Your task to perform on an android device: Show the shopping cart on newegg.com. Search for usb-c to usb-b on newegg.com, select the first entry, add it to the cart, then select checkout. Image 0: 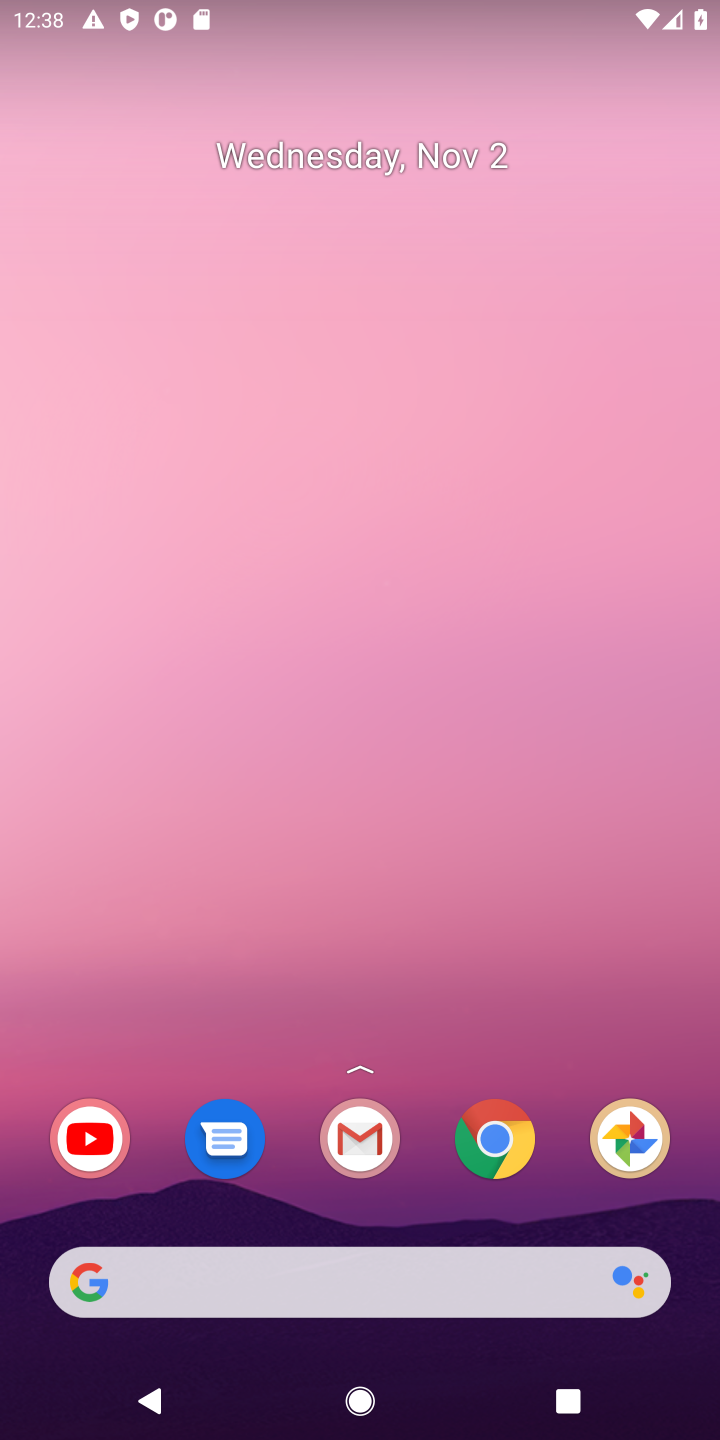
Step 0: press home button
Your task to perform on an android device: Show the shopping cart on newegg.com. Search for usb-c to usb-b on newegg.com, select the first entry, add it to the cart, then select checkout. Image 1: 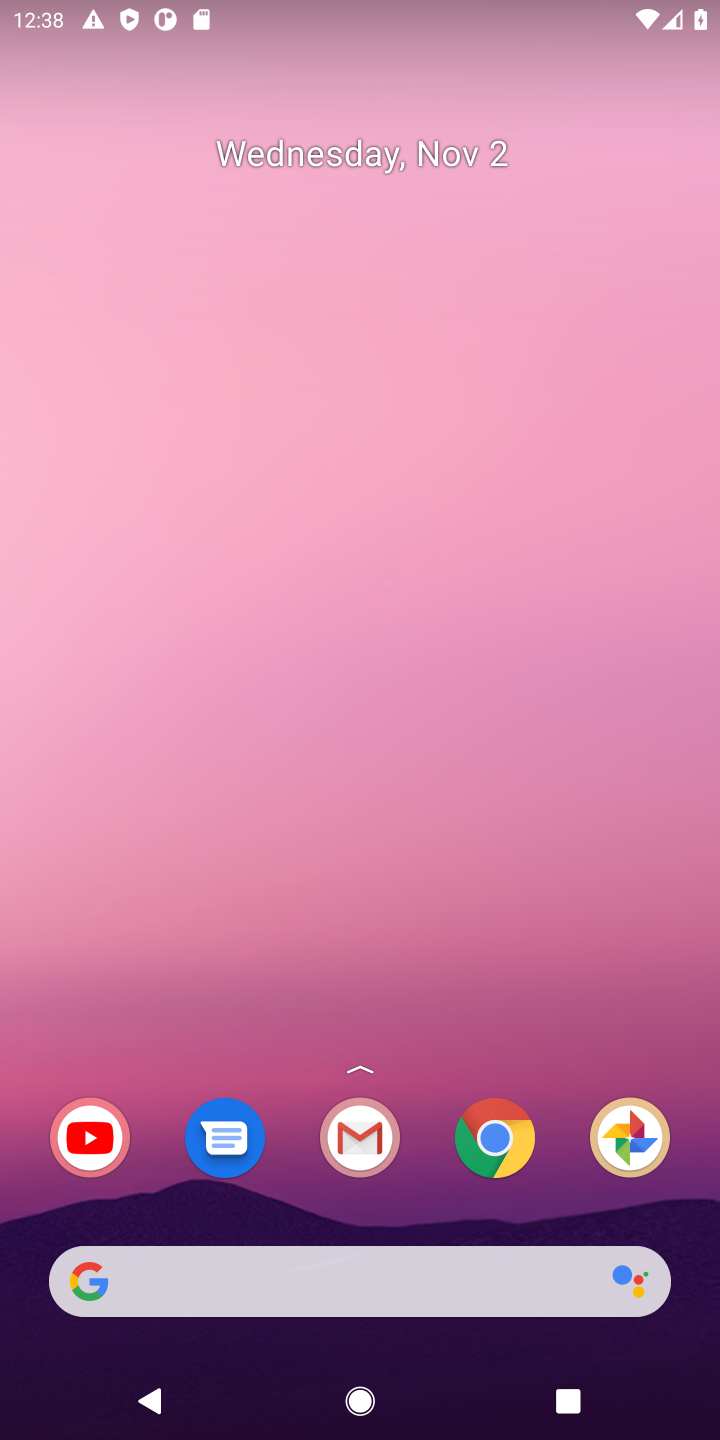
Step 1: click (124, 1280)
Your task to perform on an android device: Show the shopping cart on newegg.com. Search for usb-c to usb-b on newegg.com, select the first entry, add it to the cart, then select checkout. Image 2: 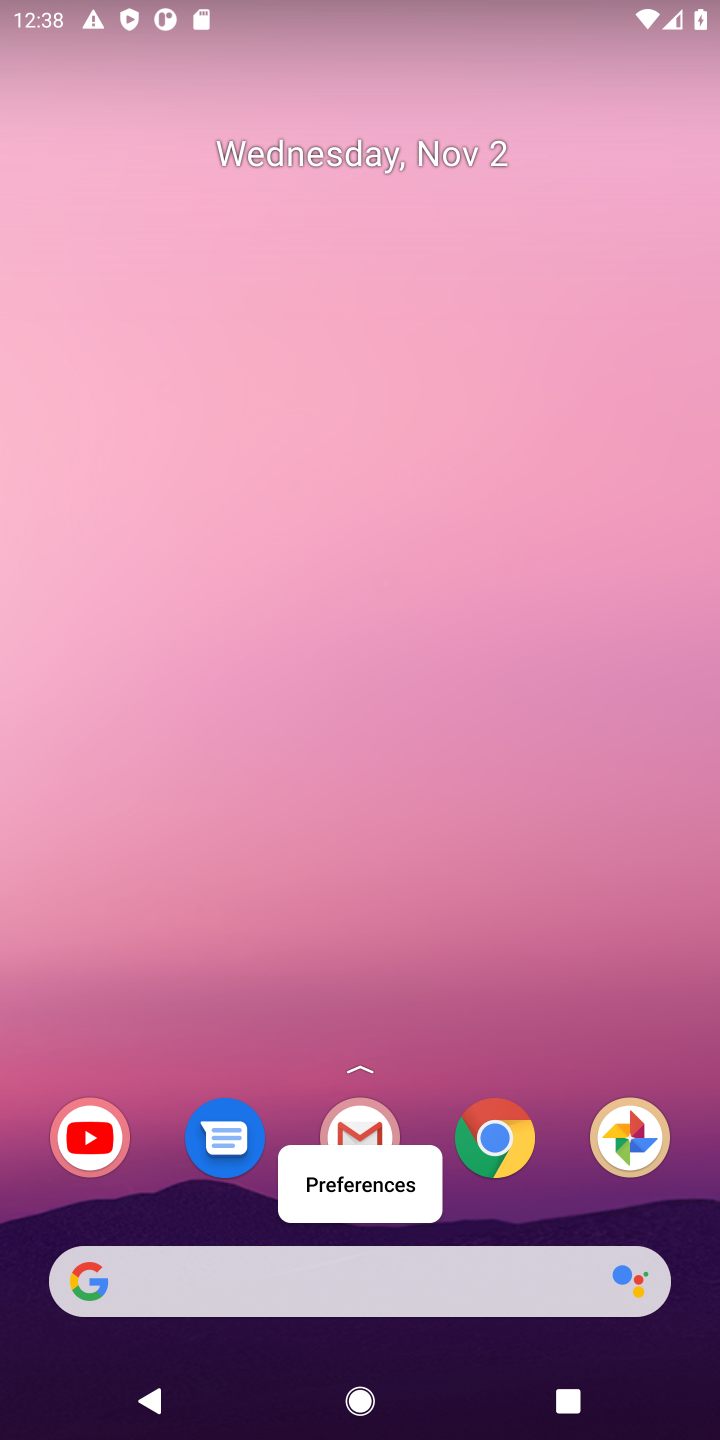
Step 2: click (124, 1280)
Your task to perform on an android device: Show the shopping cart on newegg.com. Search for usb-c to usb-b on newegg.com, select the first entry, add it to the cart, then select checkout. Image 3: 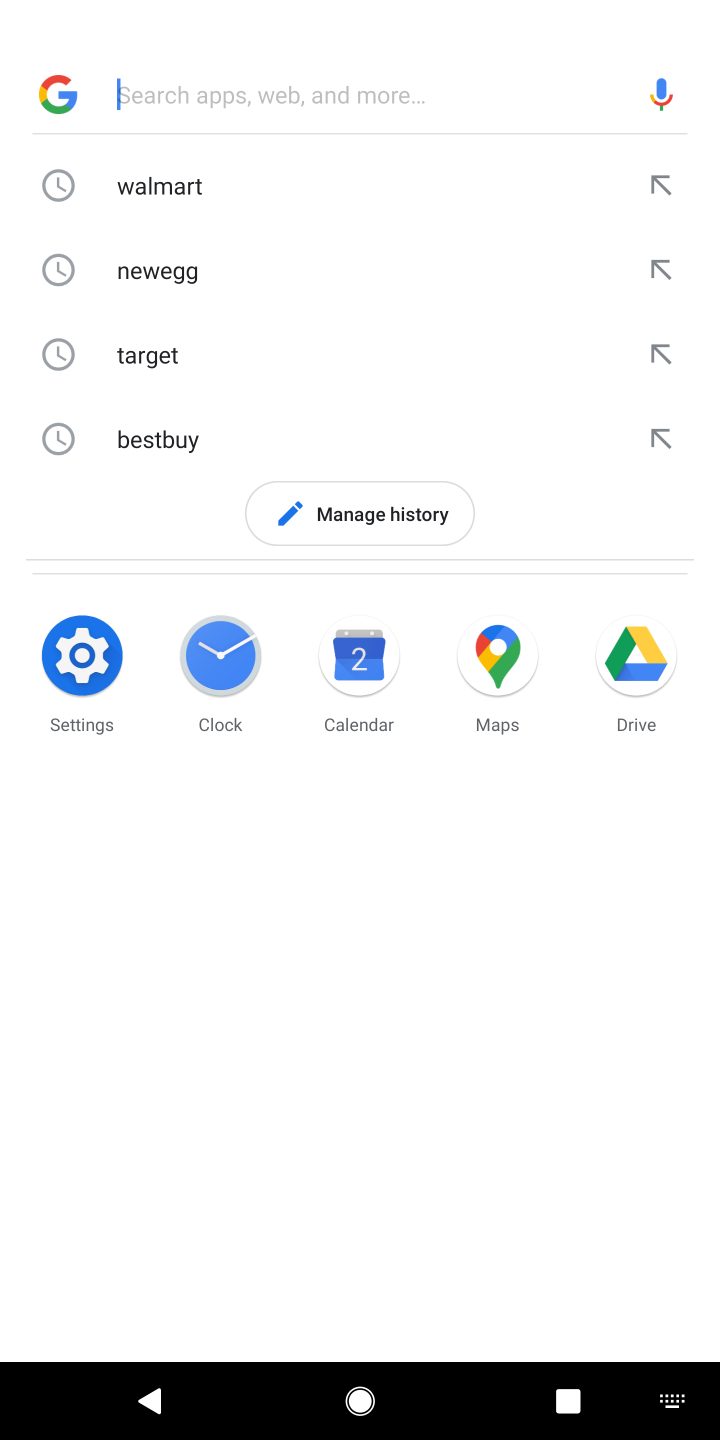
Step 3: type "newegg.com"
Your task to perform on an android device: Show the shopping cart on newegg.com. Search for usb-c to usb-b on newegg.com, select the first entry, add it to the cart, then select checkout. Image 4: 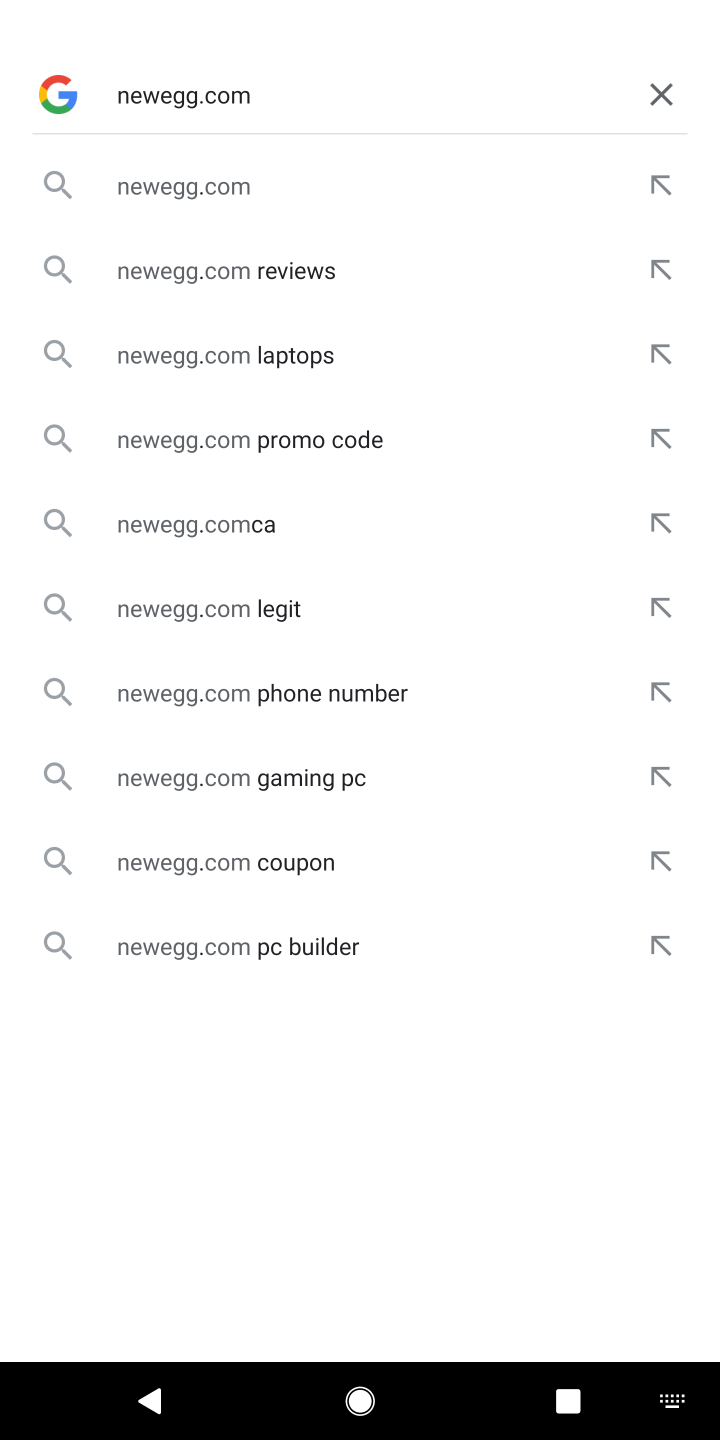
Step 4: press enter
Your task to perform on an android device: Show the shopping cart on newegg.com. Search for usb-c to usb-b on newegg.com, select the first entry, add it to the cart, then select checkout. Image 5: 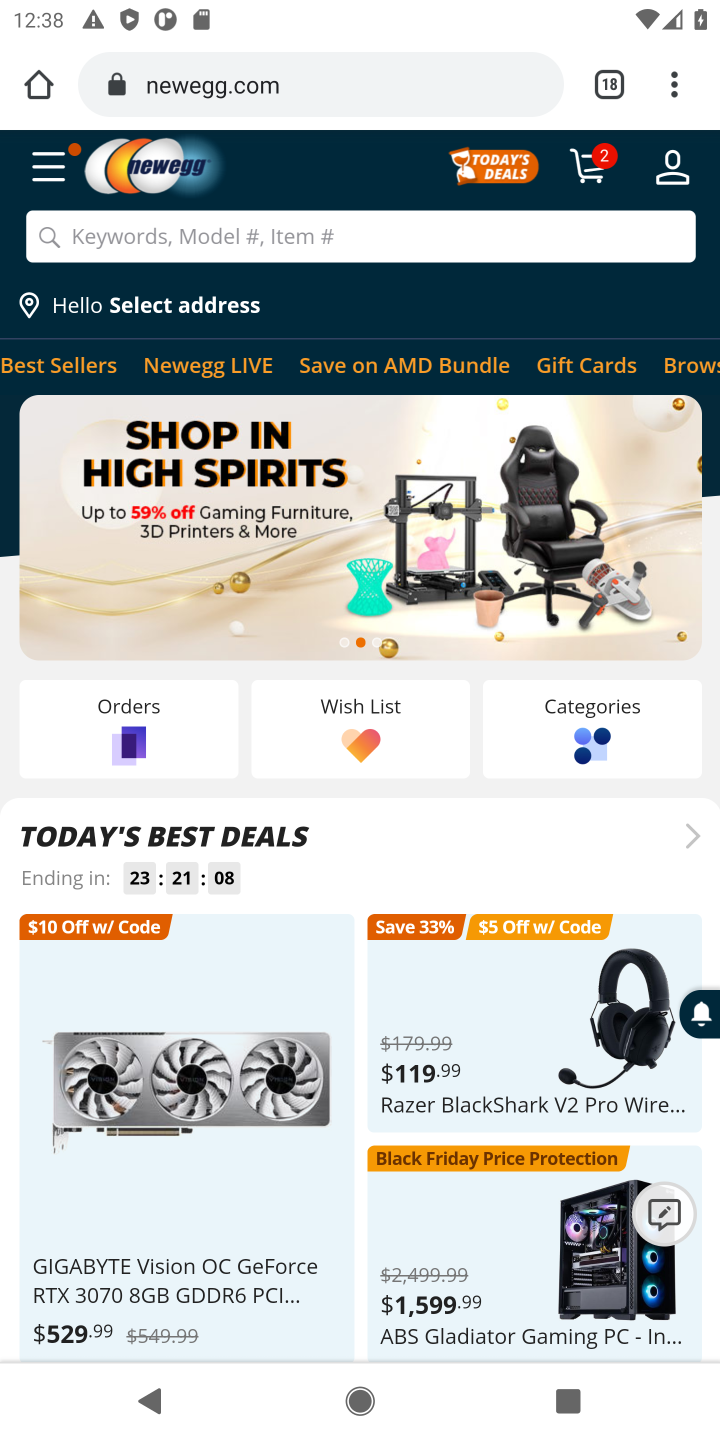
Step 5: click (594, 169)
Your task to perform on an android device: Show the shopping cart on newegg.com. Search for usb-c to usb-b on newegg.com, select the first entry, add it to the cart, then select checkout. Image 6: 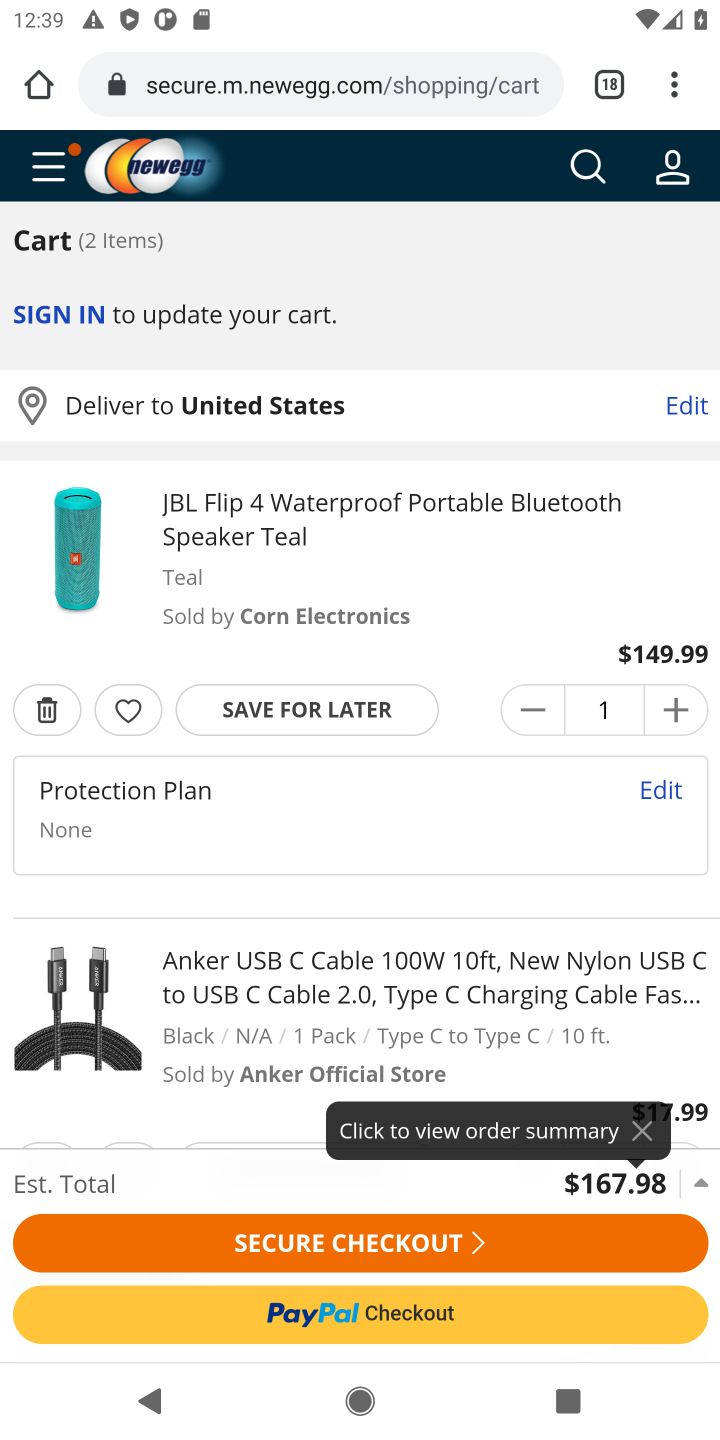
Step 6: click (584, 165)
Your task to perform on an android device: Show the shopping cart on newegg.com. Search for usb-c to usb-b on newegg.com, select the first entry, add it to the cart, then select checkout. Image 7: 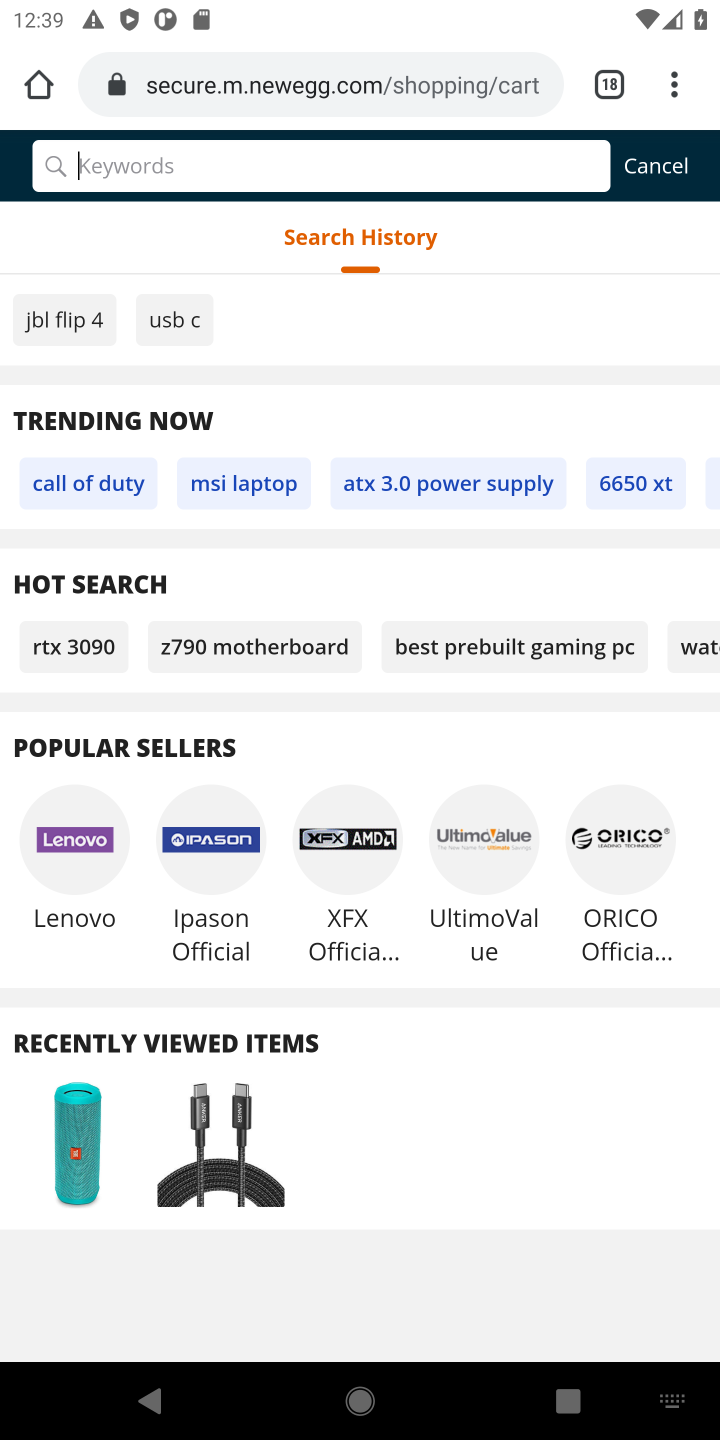
Step 7: type "usb-c to usb-b"
Your task to perform on an android device: Show the shopping cart on newegg.com. Search for usb-c to usb-b on newegg.com, select the first entry, add it to the cart, then select checkout. Image 8: 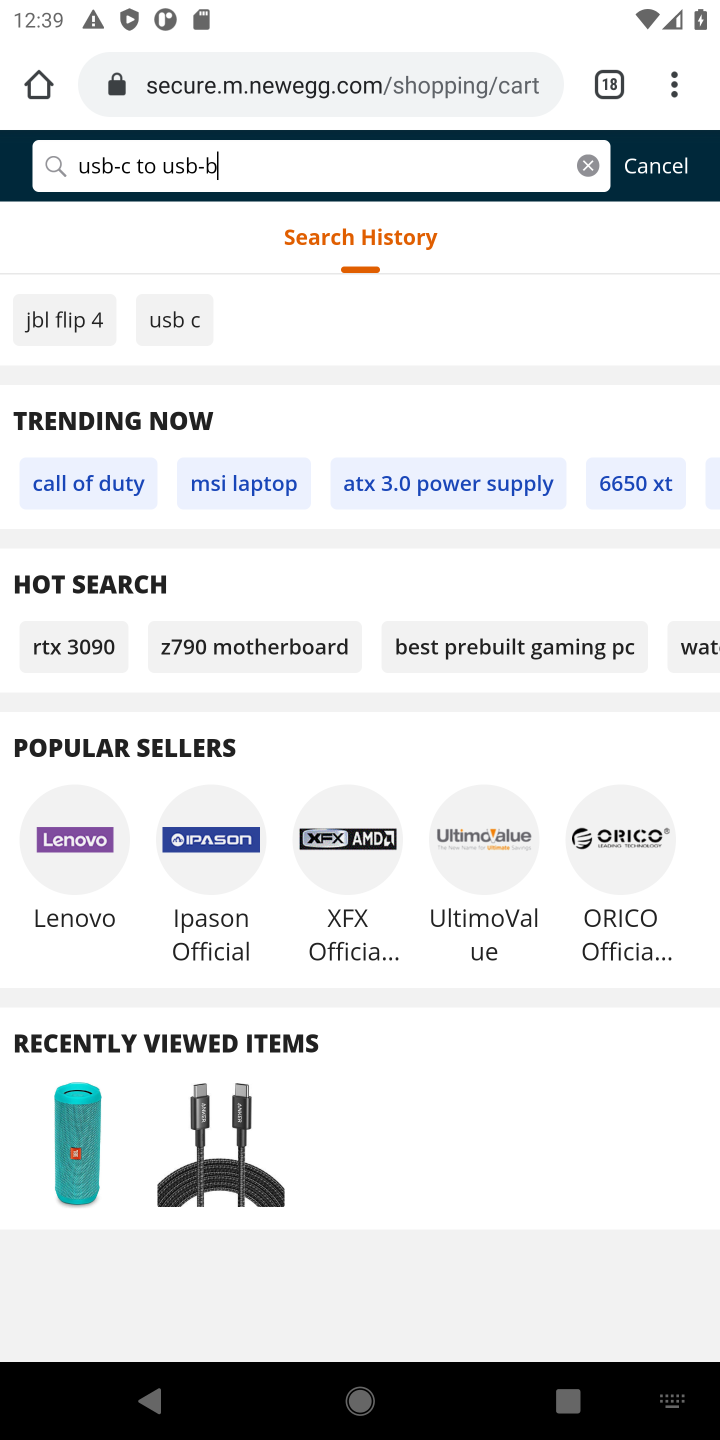
Step 8: press enter
Your task to perform on an android device: Show the shopping cart on newegg.com. Search for usb-c to usb-b on newegg.com, select the first entry, add it to the cart, then select checkout. Image 9: 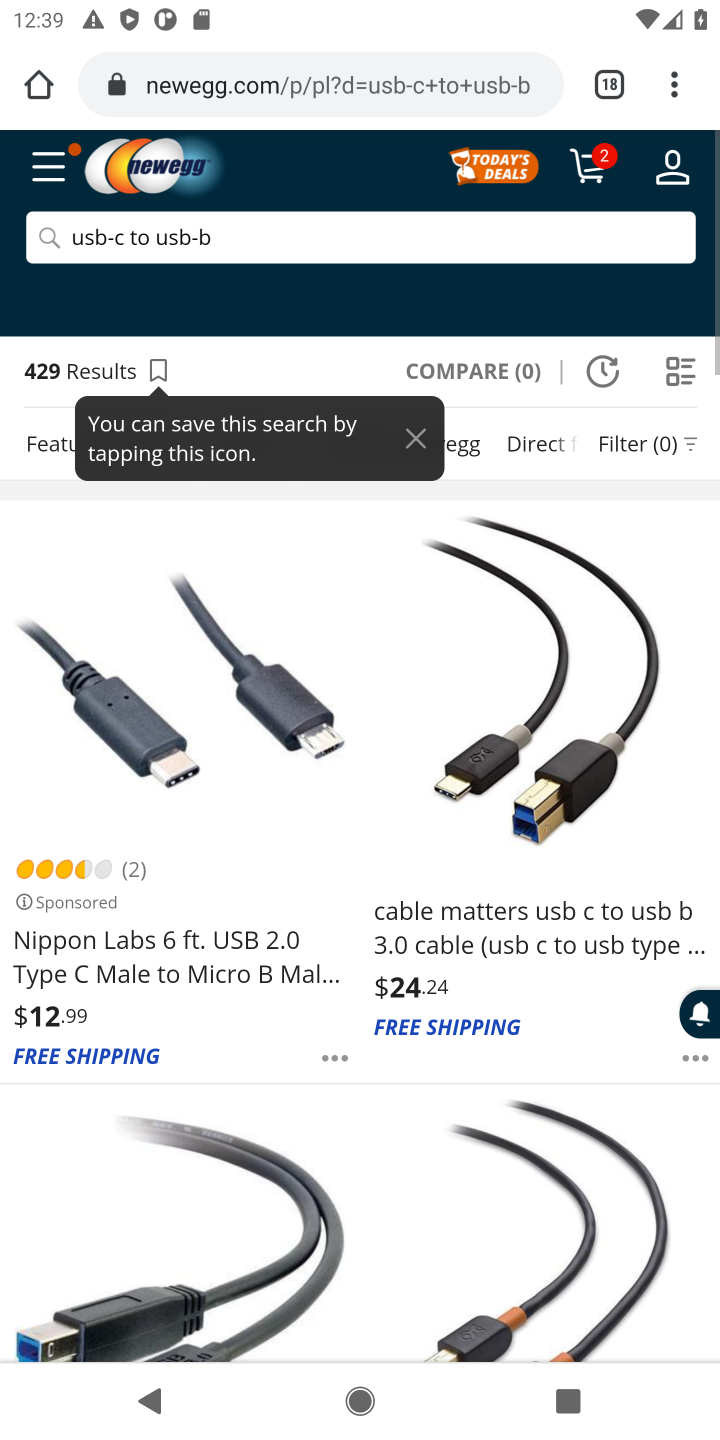
Step 9: drag from (512, 1163) to (483, 641)
Your task to perform on an android device: Show the shopping cart on newegg.com. Search for usb-c to usb-b on newegg.com, select the first entry, add it to the cart, then select checkout. Image 10: 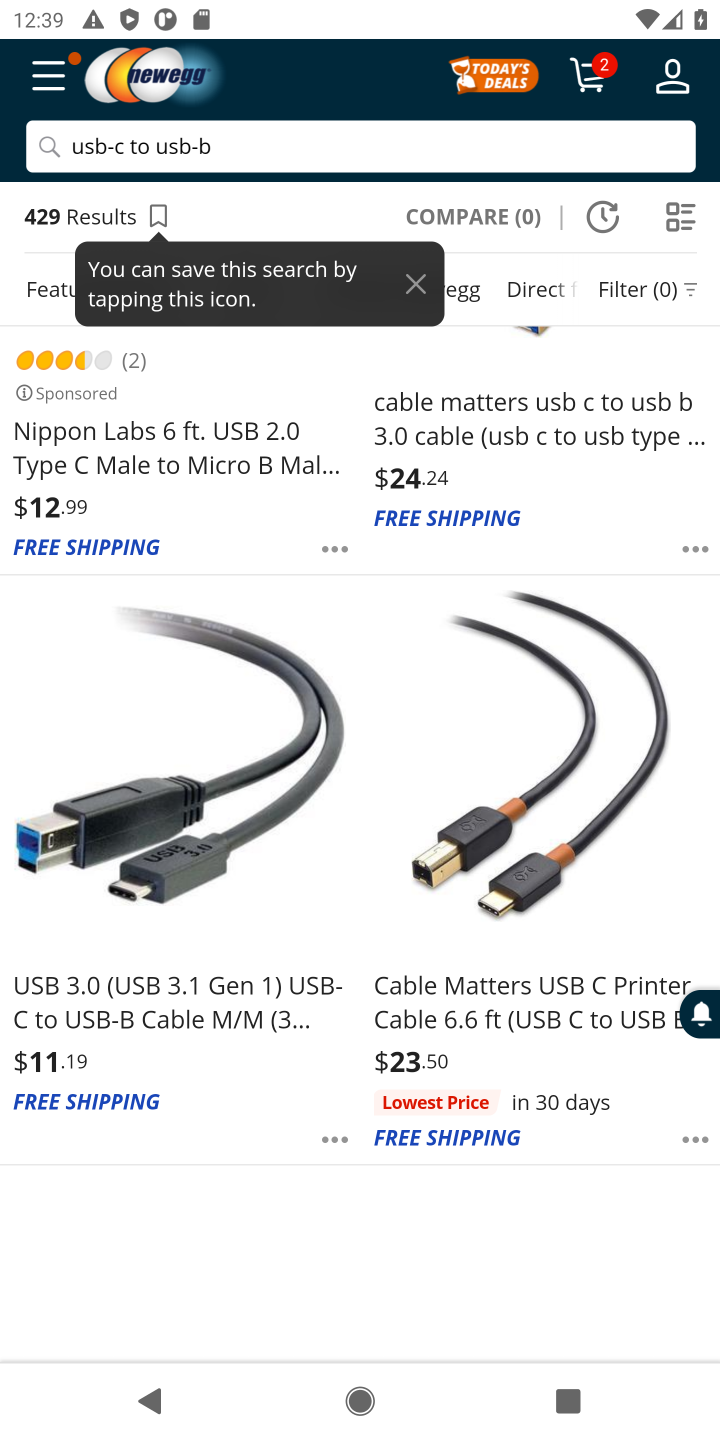
Step 10: drag from (515, 1172) to (540, 816)
Your task to perform on an android device: Show the shopping cart on newegg.com. Search for usb-c to usb-b on newegg.com, select the first entry, add it to the cart, then select checkout. Image 11: 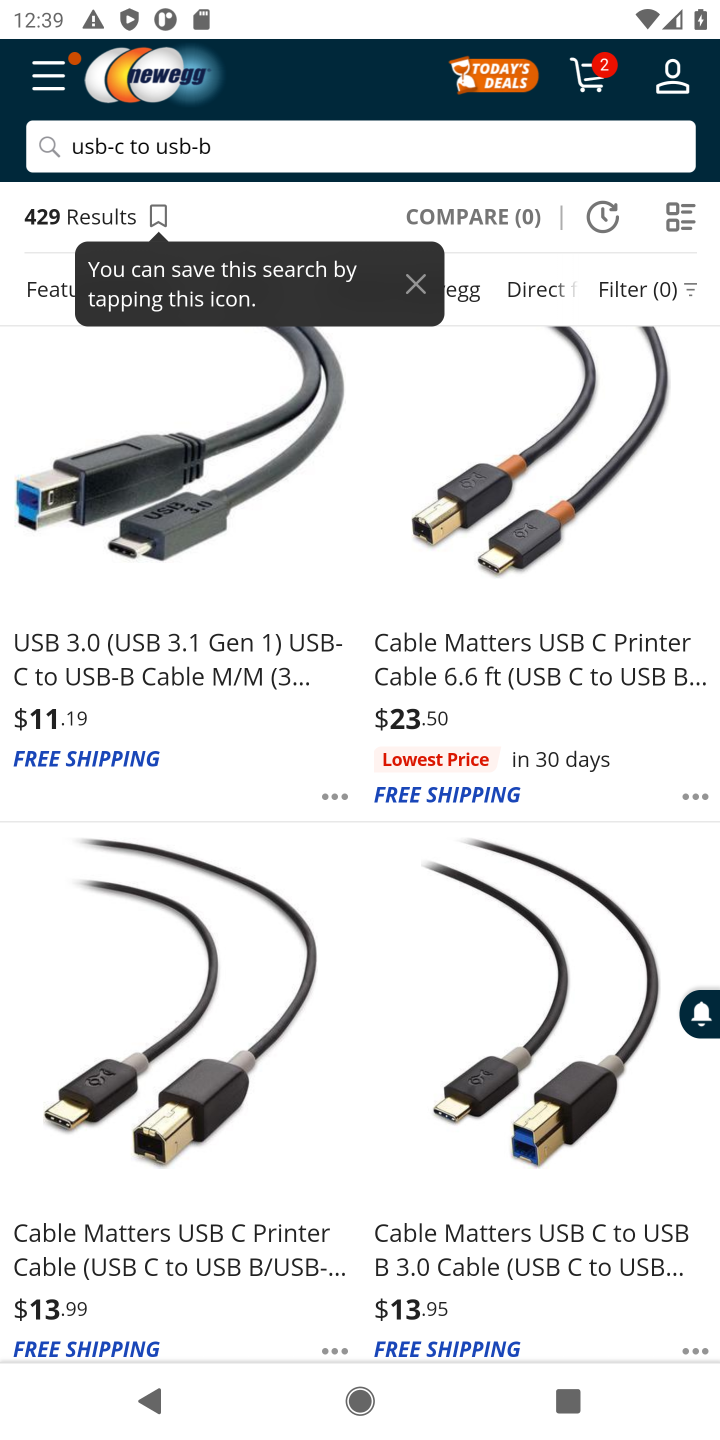
Step 11: click (158, 647)
Your task to perform on an android device: Show the shopping cart on newegg.com. Search for usb-c to usb-b on newegg.com, select the first entry, add it to the cart, then select checkout. Image 12: 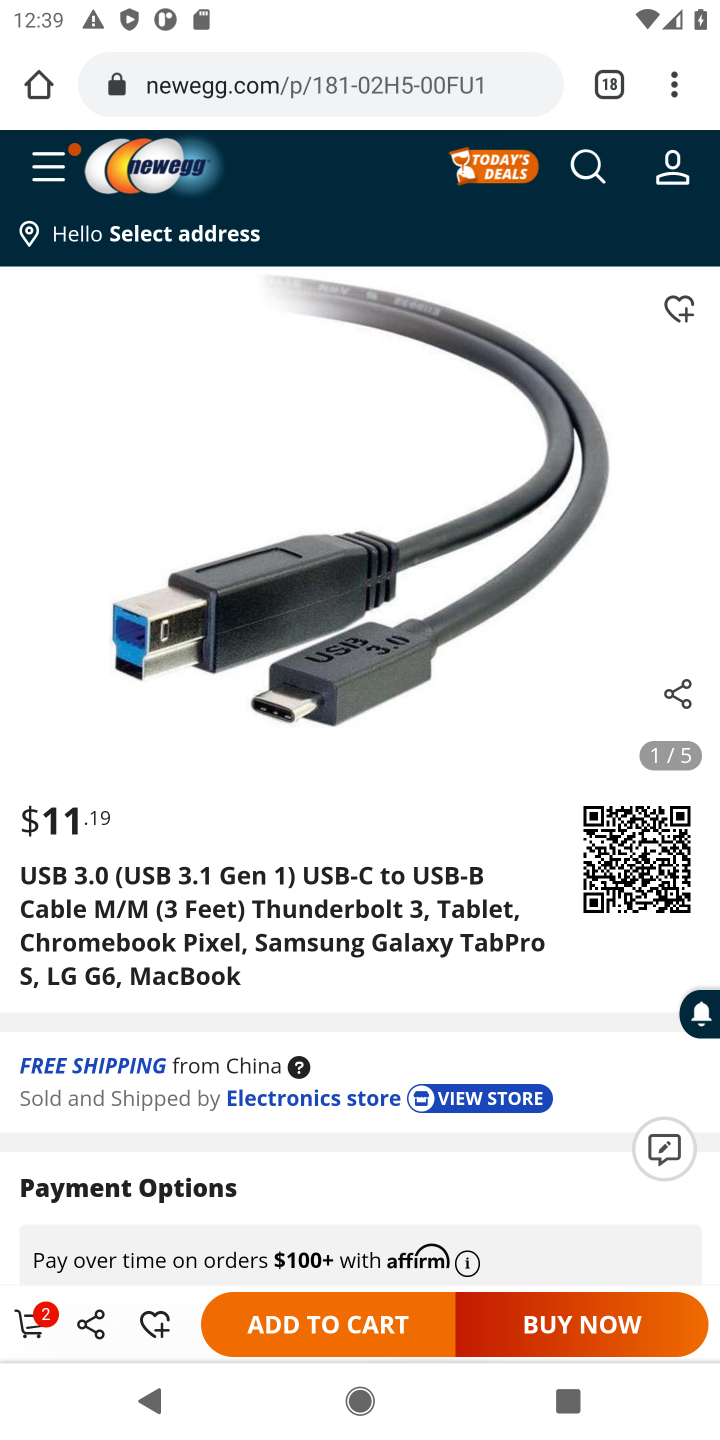
Step 12: click (281, 1333)
Your task to perform on an android device: Show the shopping cart on newegg.com. Search for usb-c to usb-b on newegg.com, select the first entry, add it to the cart, then select checkout. Image 13: 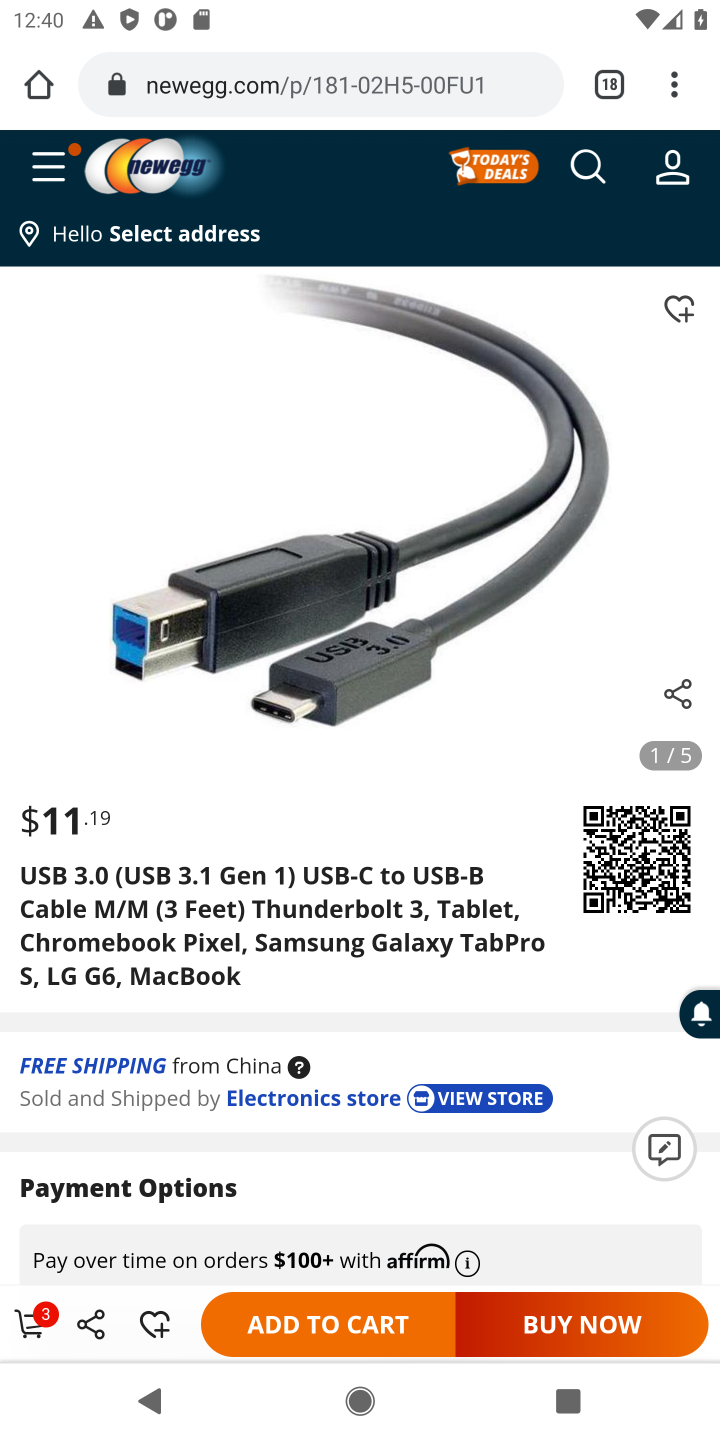
Step 13: click (27, 1322)
Your task to perform on an android device: Show the shopping cart on newegg.com. Search for usb-c to usb-b on newegg.com, select the first entry, add it to the cart, then select checkout. Image 14: 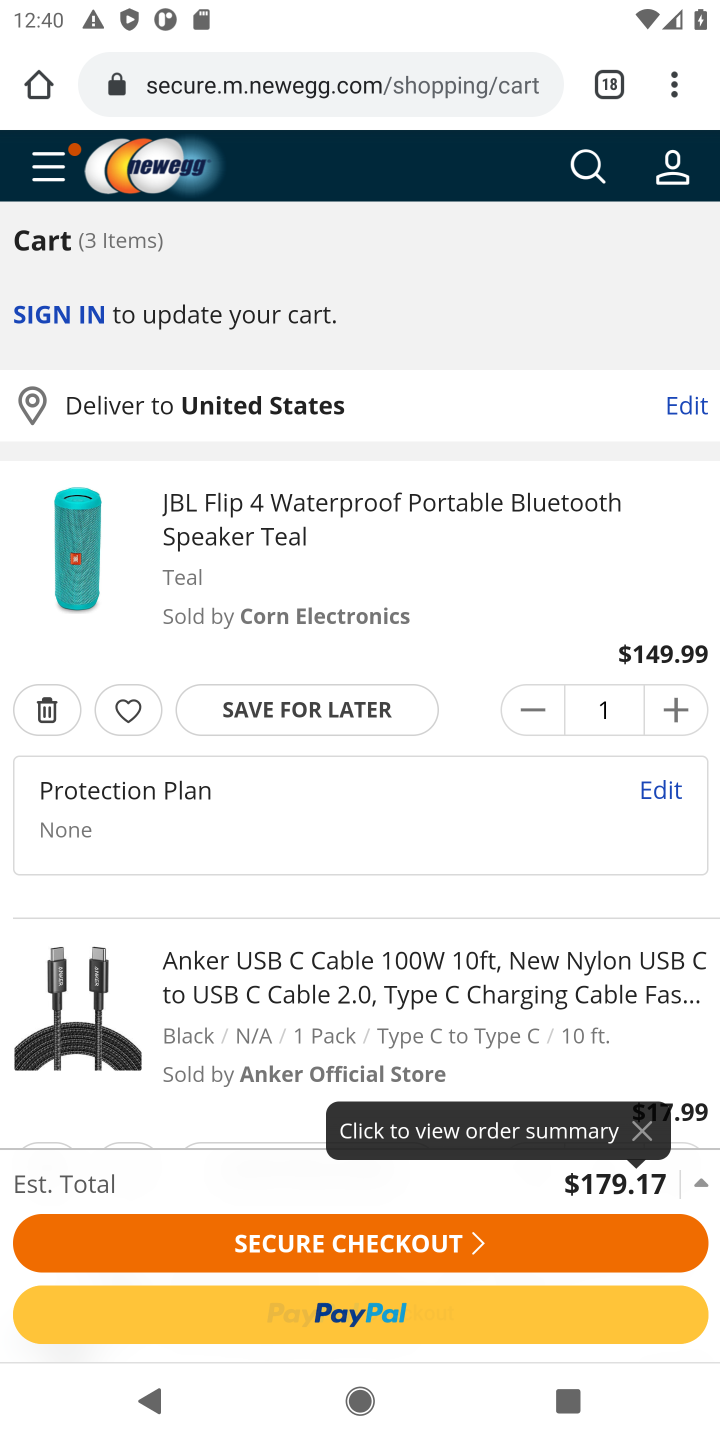
Step 14: click (310, 1242)
Your task to perform on an android device: Show the shopping cart on newegg.com. Search for usb-c to usb-b on newegg.com, select the first entry, add it to the cart, then select checkout. Image 15: 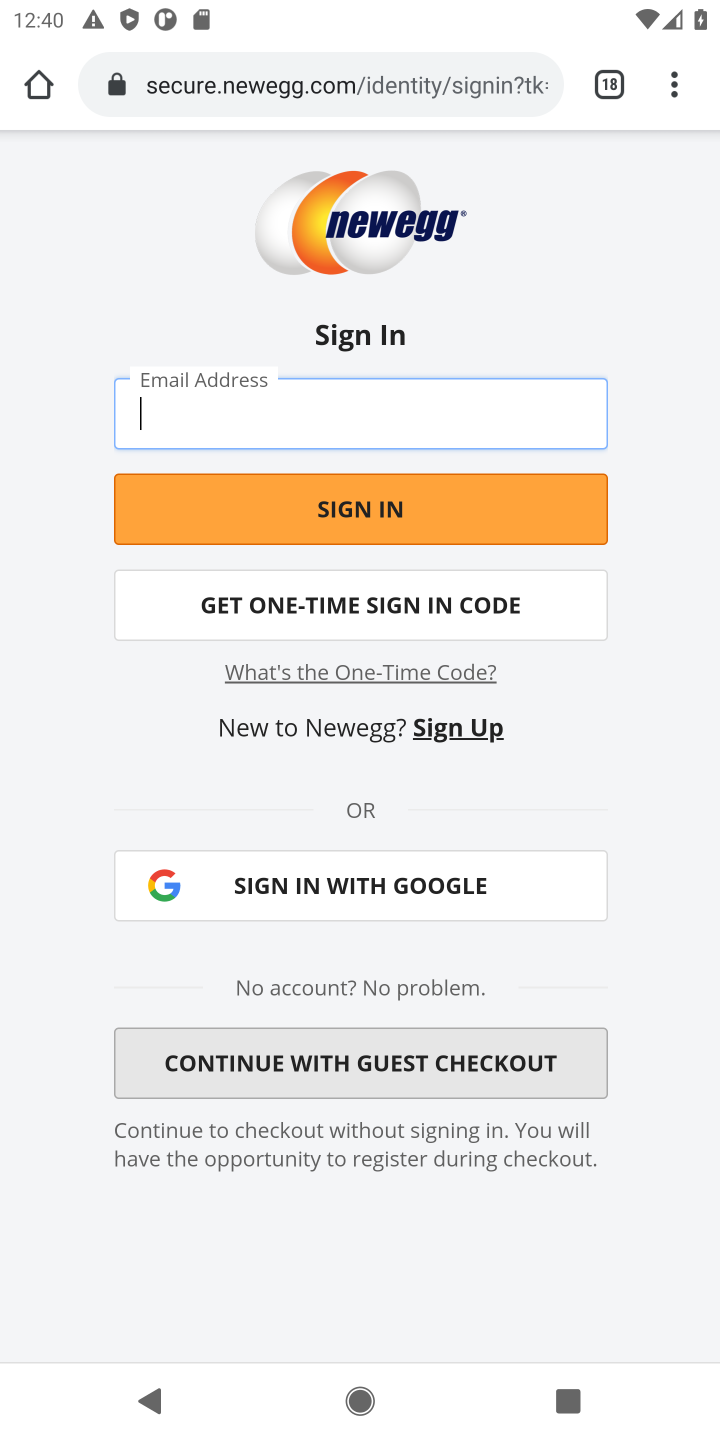
Step 15: task complete